Your task to perform on an android device: open app "WhatsApp Messenger" (install if not already installed), go to login, and select forgot password Image 0: 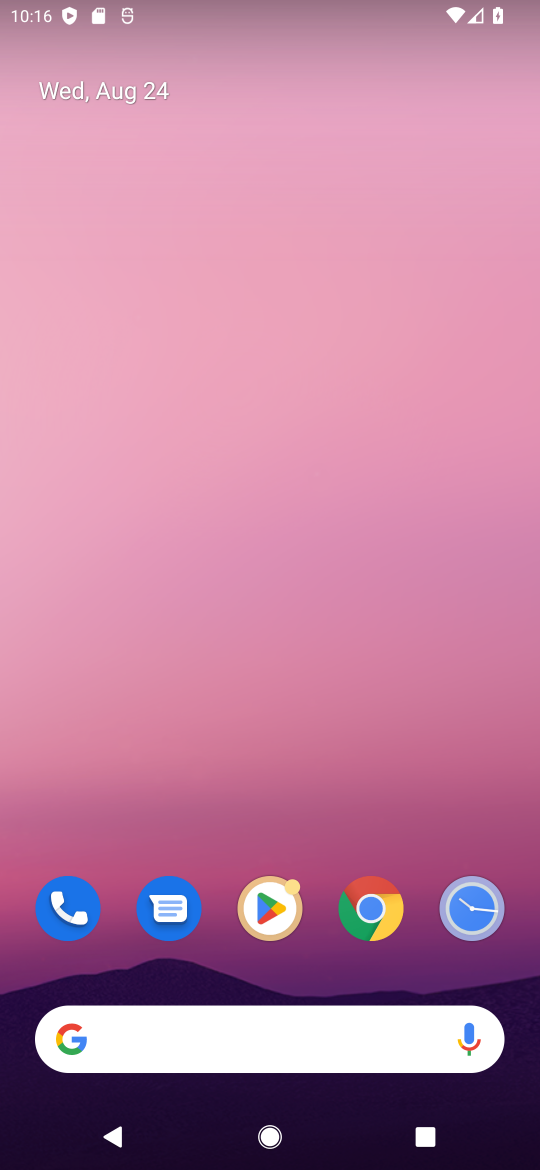
Step 0: click (292, 931)
Your task to perform on an android device: open app "WhatsApp Messenger" (install if not already installed), go to login, and select forgot password Image 1: 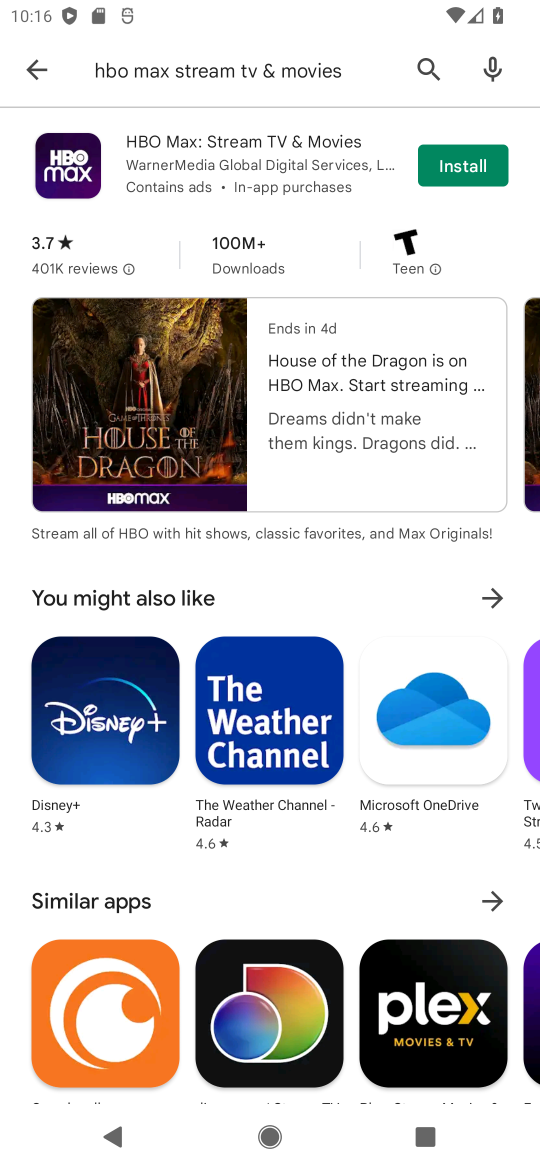
Step 1: click (32, 66)
Your task to perform on an android device: open app "WhatsApp Messenger" (install if not already installed), go to login, and select forgot password Image 2: 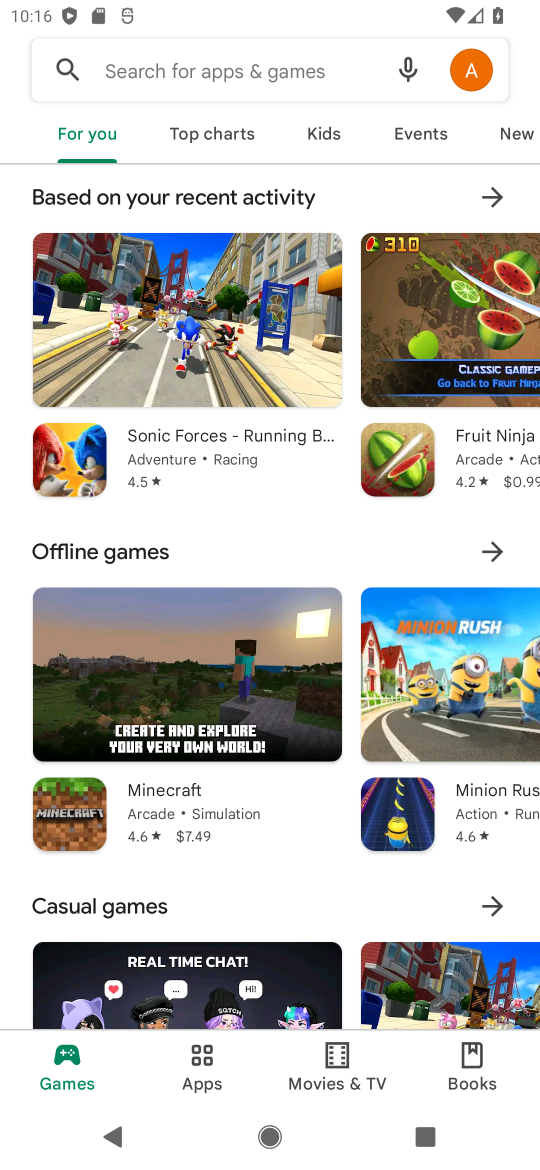
Step 2: click (286, 70)
Your task to perform on an android device: open app "WhatsApp Messenger" (install if not already installed), go to login, and select forgot password Image 3: 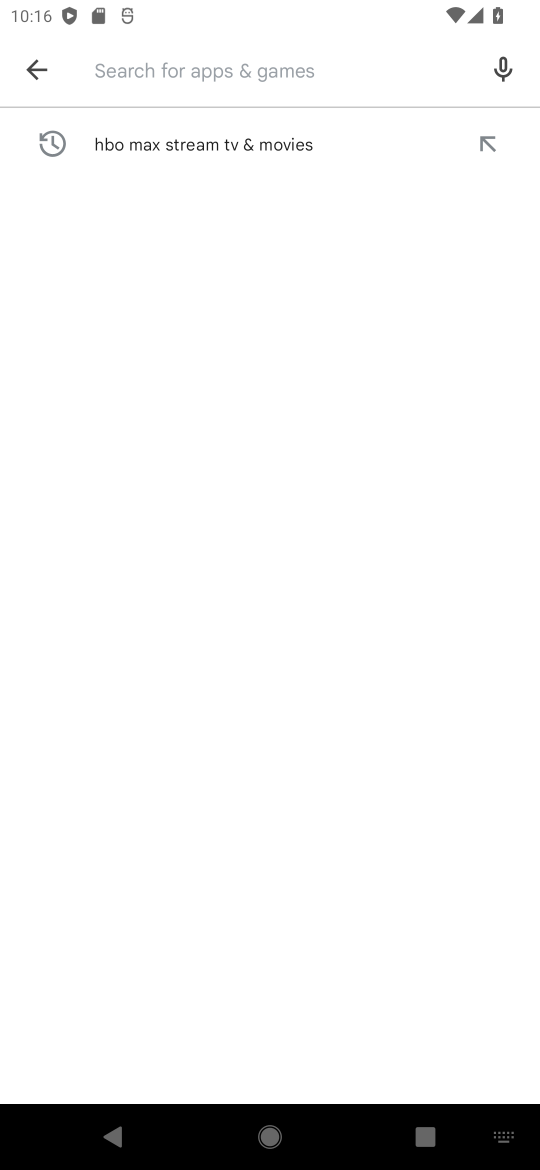
Step 3: type "WhatsApp Messenger"
Your task to perform on an android device: open app "WhatsApp Messenger" (install if not already installed), go to login, and select forgot password Image 4: 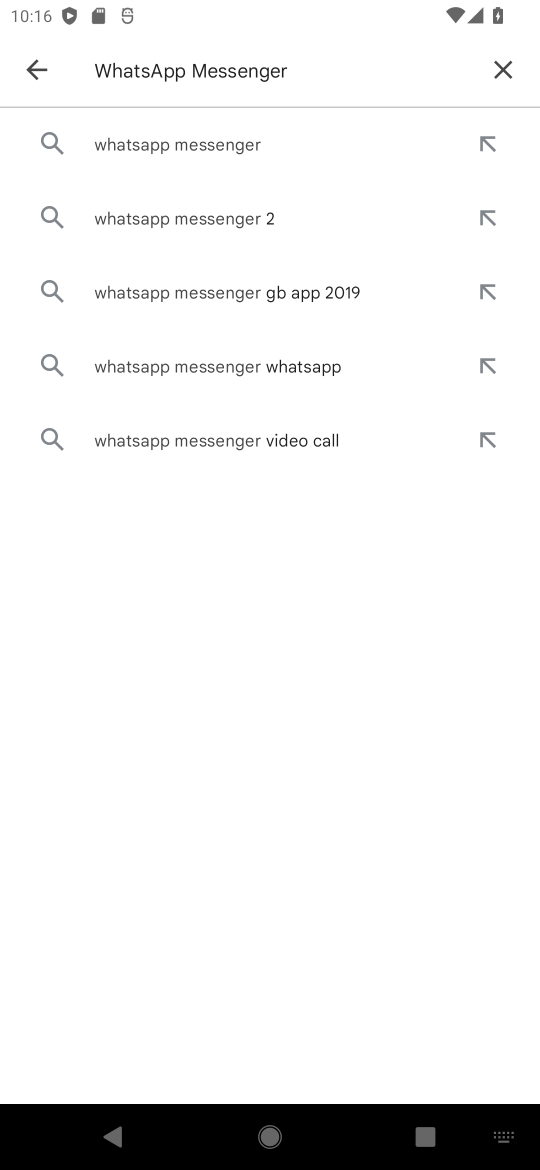
Step 4: click (216, 148)
Your task to perform on an android device: open app "WhatsApp Messenger" (install if not already installed), go to login, and select forgot password Image 5: 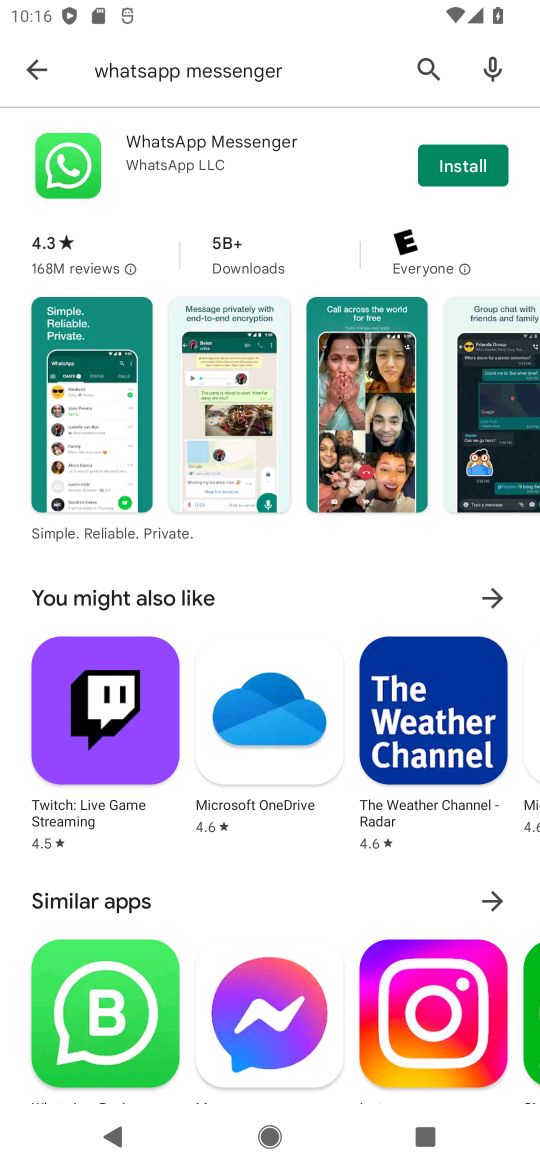
Step 5: click (448, 181)
Your task to perform on an android device: open app "WhatsApp Messenger" (install if not already installed), go to login, and select forgot password Image 6: 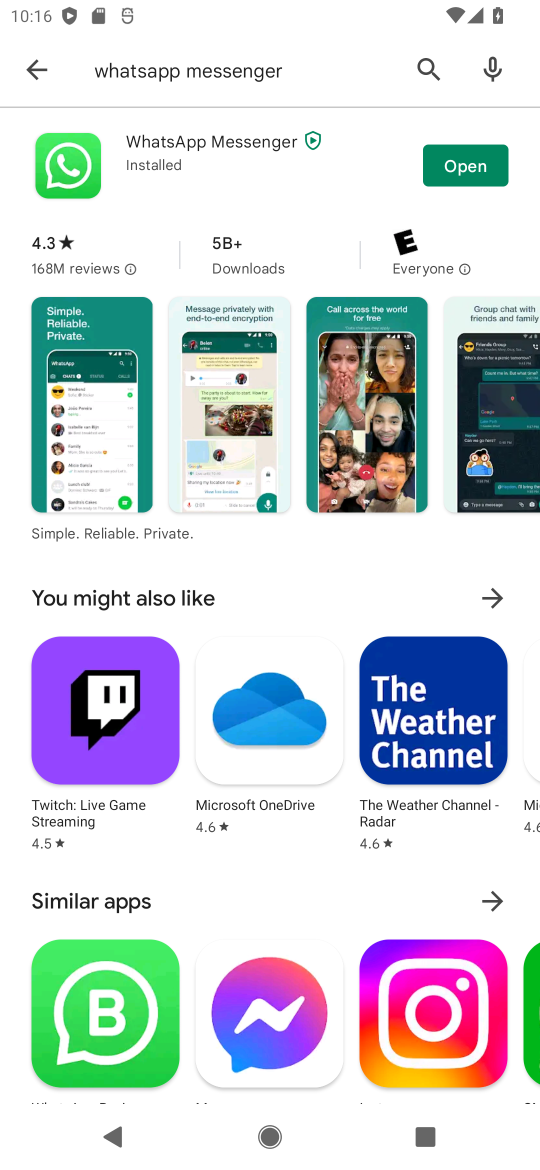
Step 6: click (448, 181)
Your task to perform on an android device: open app "WhatsApp Messenger" (install if not already installed), go to login, and select forgot password Image 7: 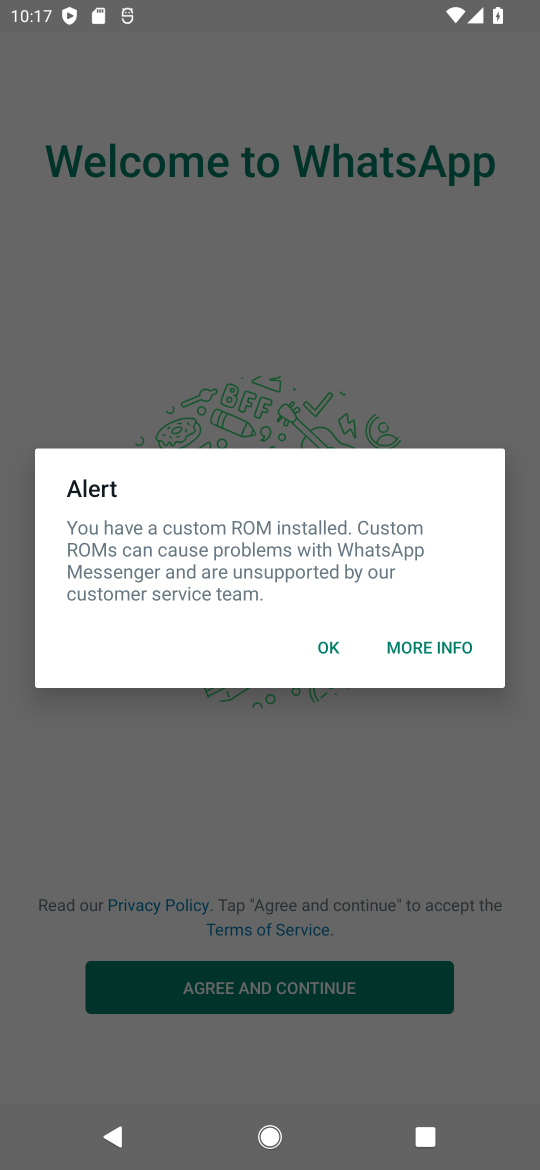
Step 7: click (326, 654)
Your task to perform on an android device: open app "WhatsApp Messenger" (install if not already installed), go to login, and select forgot password Image 8: 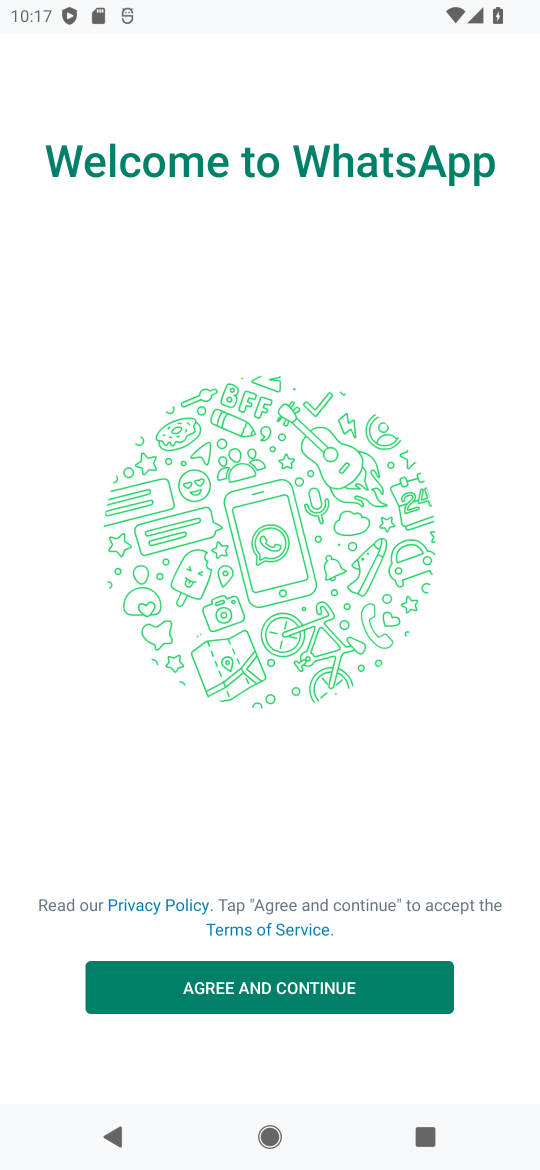
Step 8: click (216, 977)
Your task to perform on an android device: open app "WhatsApp Messenger" (install if not already installed), go to login, and select forgot password Image 9: 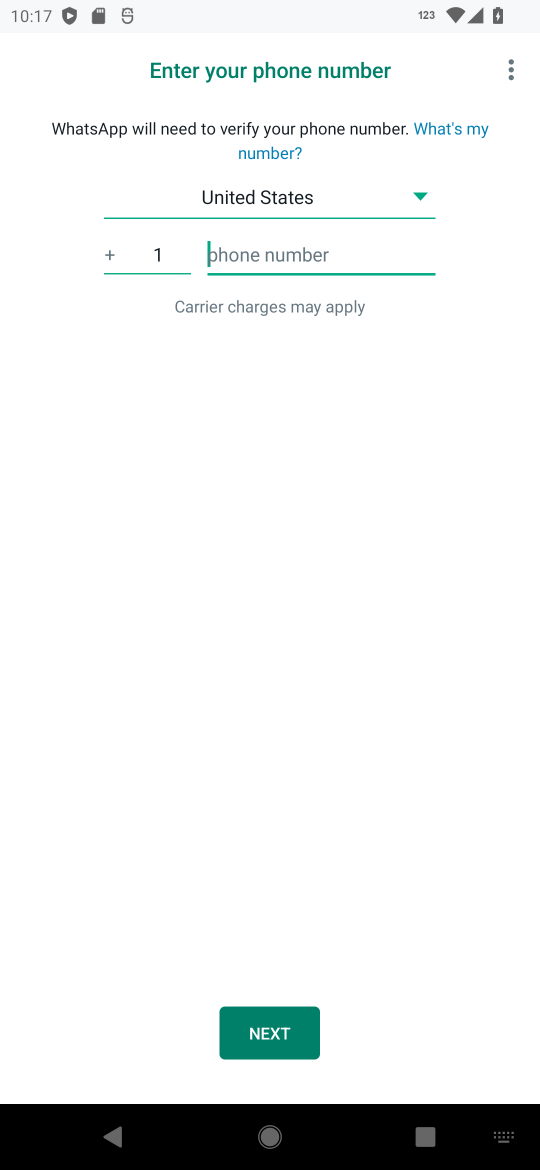
Step 9: task complete